Your task to perform on an android device: turn off notifications in google photos Image 0: 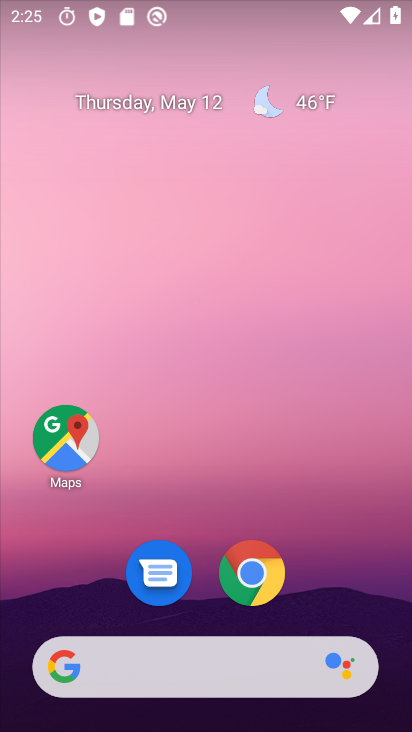
Step 0: drag from (197, 610) to (191, 234)
Your task to perform on an android device: turn off notifications in google photos Image 1: 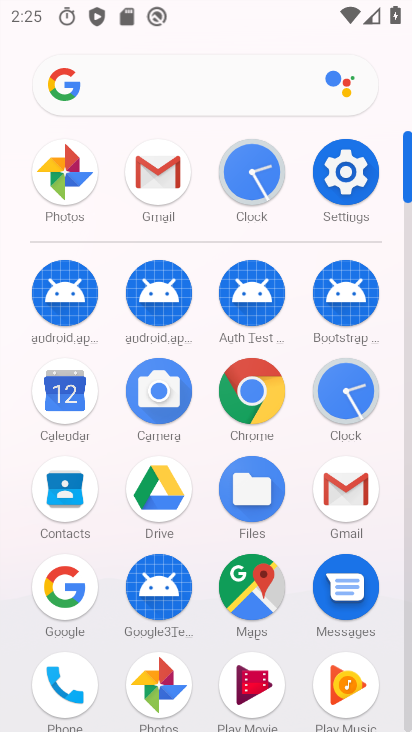
Step 1: click (183, 677)
Your task to perform on an android device: turn off notifications in google photos Image 2: 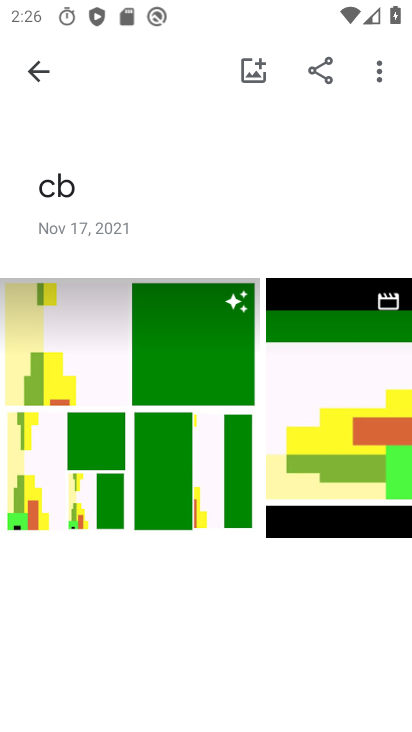
Step 2: click (70, 73)
Your task to perform on an android device: turn off notifications in google photos Image 3: 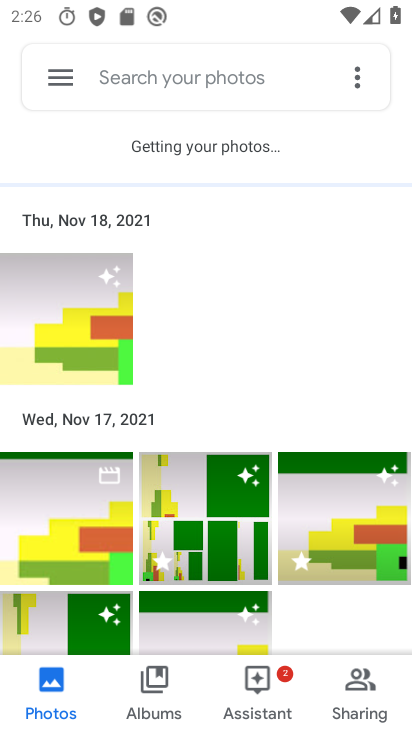
Step 3: click (70, 73)
Your task to perform on an android device: turn off notifications in google photos Image 4: 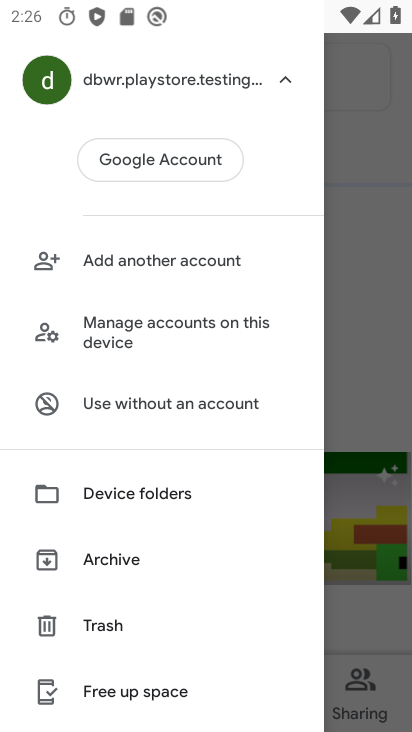
Step 4: drag from (152, 649) to (168, 323)
Your task to perform on an android device: turn off notifications in google photos Image 5: 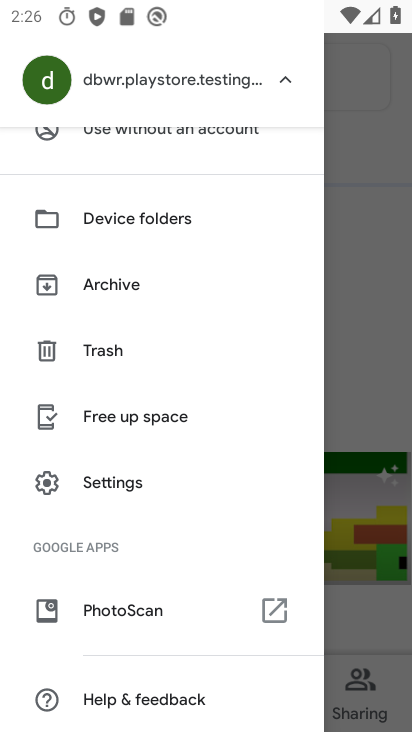
Step 5: click (134, 471)
Your task to perform on an android device: turn off notifications in google photos Image 6: 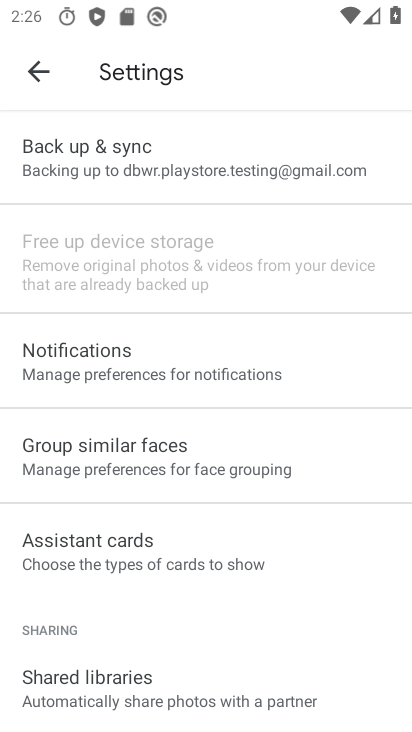
Step 6: click (201, 394)
Your task to perform on an android device: turn off notifications in google photos Image 7: 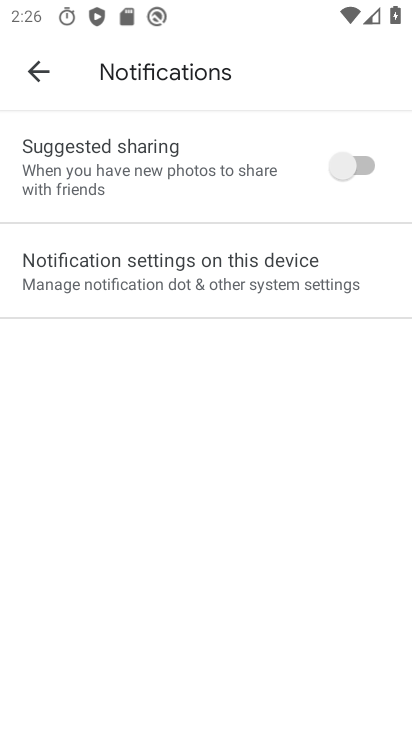
Step 7: click (151, 298)
Your task to perform on an android device: turn off notifications in google photos Image 8: 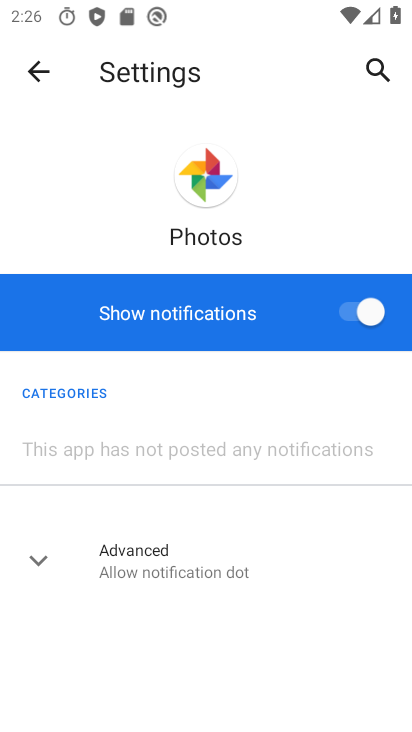
Step 8: click (366, 313)
Your task to perform on an android device: turn off notifications in google photos Image 9: 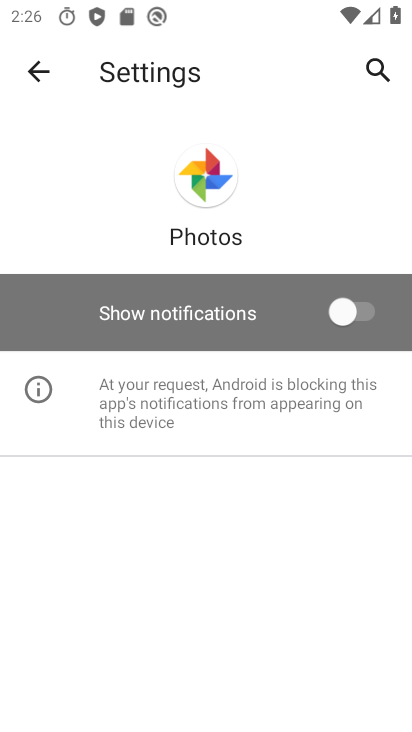
Step 9: task complete